Your task to perform on an android device: turn off notifications in google photos Image 0: 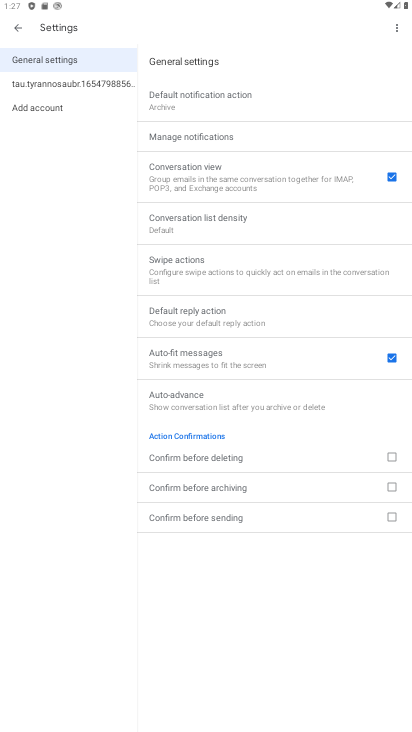
Step 0: press home button
Your task to perform on an android device: turn off notifications in google photos Image 1: 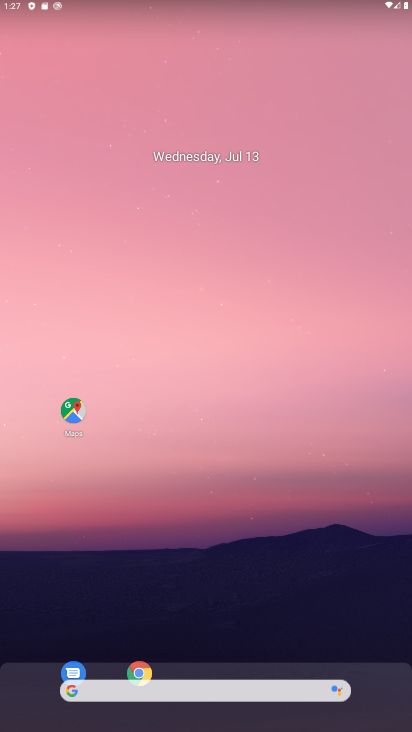
Step 1: drag from (222, 656) to (201, 83)
Your task to perform on an android device: turn off notifications in google photos Image 2: 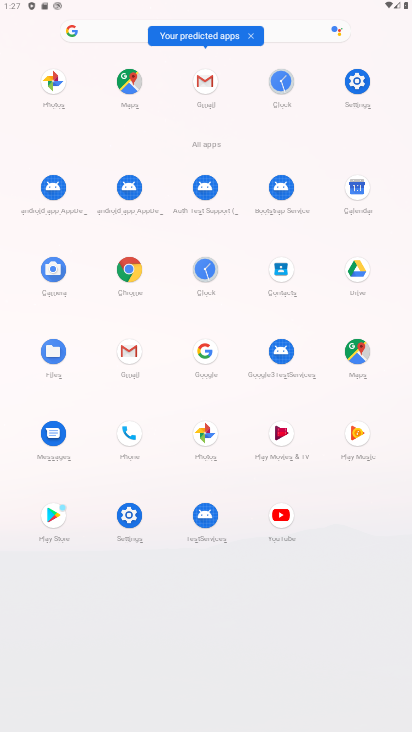
Step 2: click (54, 85)
Your task to perform on an android device: turn off notifications in google photos Image 3: 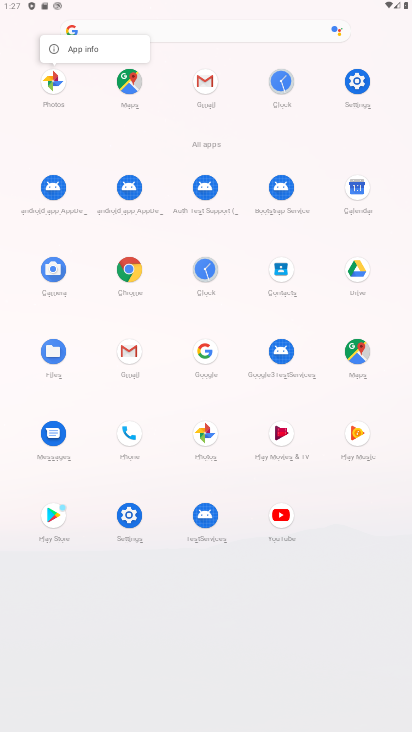
Step 3: click (54, 90)
Your task to perform on an android device: turn off notifications in google photos Image 4: 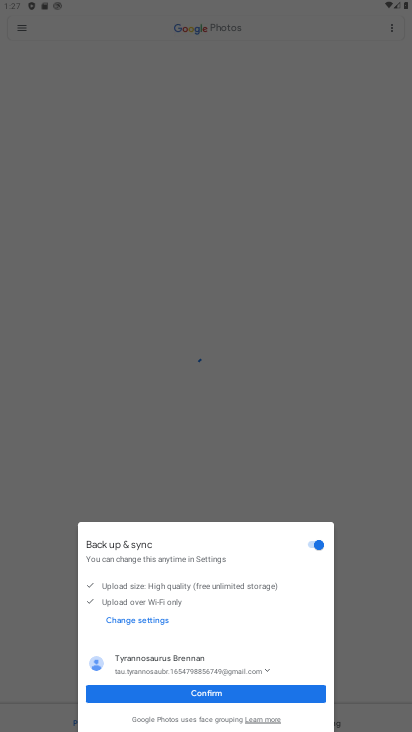
Step 4: click (240, 692)
Your task to perform on an android device: turn off notifications in google photos Image 5: 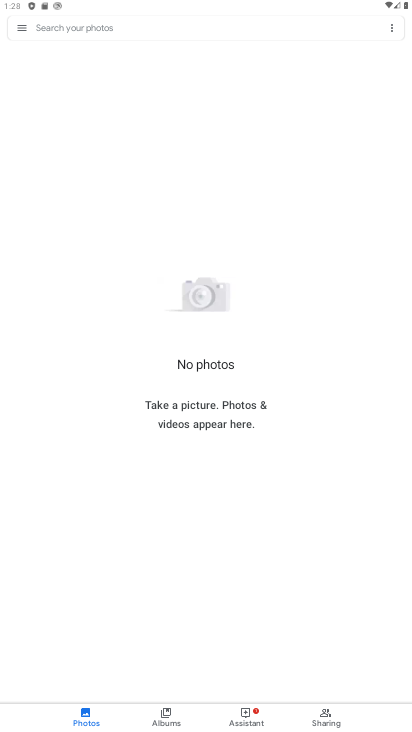
Step 5: click (24, 27)
Your task to perform on an android device: turn off notifications in google photos Image 6: 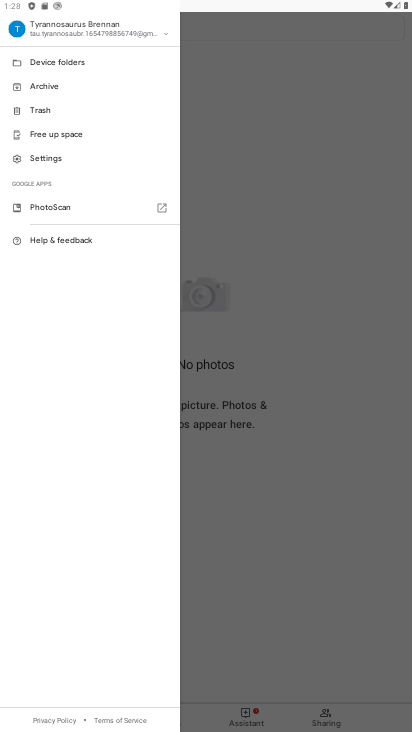
Step 6: click (58, 160)
Your task to perform on an android device: turn off notifications in google photos Image 7: 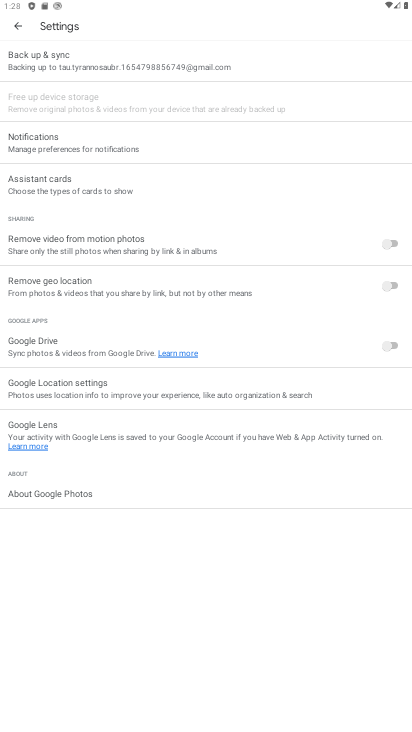
Step 7: click (64, 138)
Your task to perform on an android device: turn off notifications in google photos Image 8: 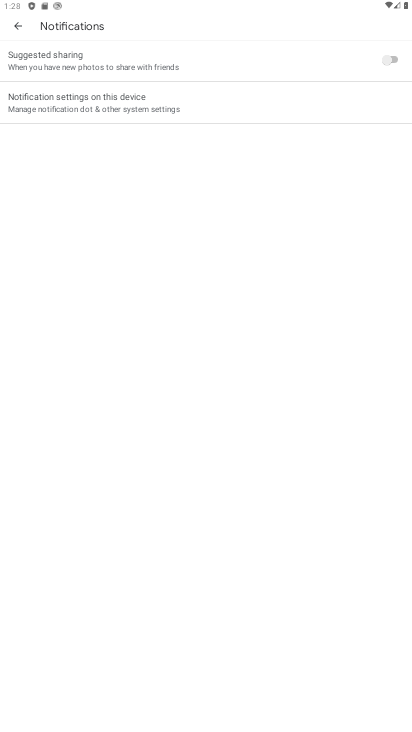
Step 8: click (346, 101)
Your task to perform on an android device: turn off notifications in google photos Image 9: 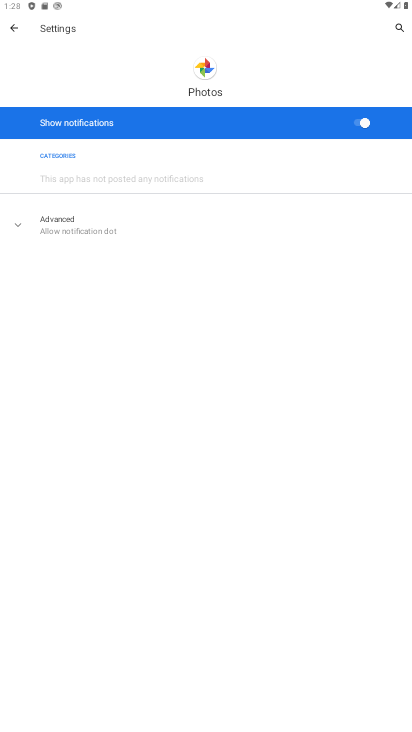
Step 9: click (358, 121)
Your task to perform on an android device: turn off notifications in google photos Image 10: 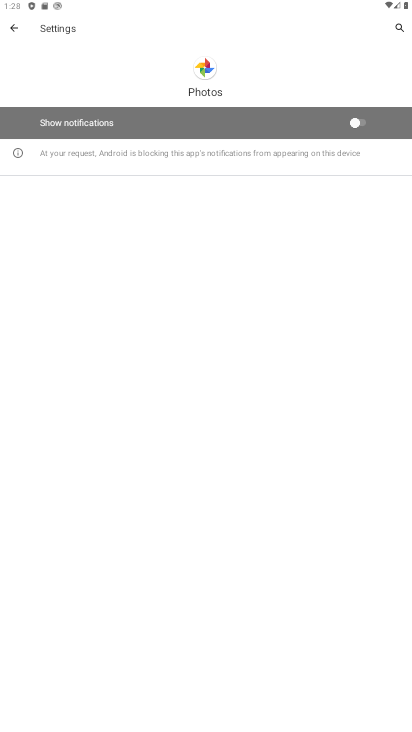
Step 10: task complete